Your task to perform on an android device: find photos in the google photos app Image 0: 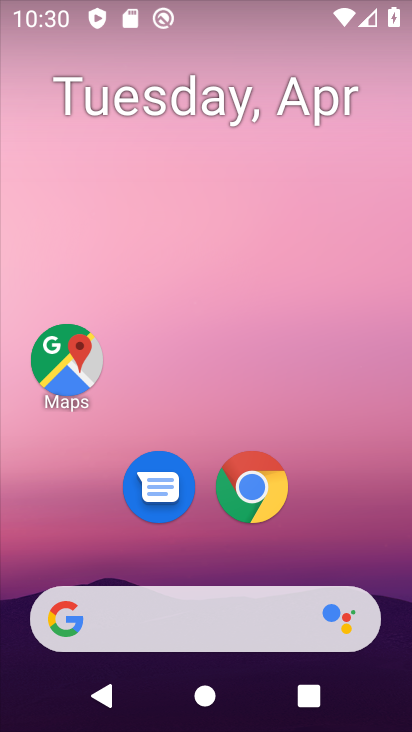
Step 0: drag from (151, 611) to (161, 204)
Your task to perform on an android device: find photos in the google photos app Image 1: 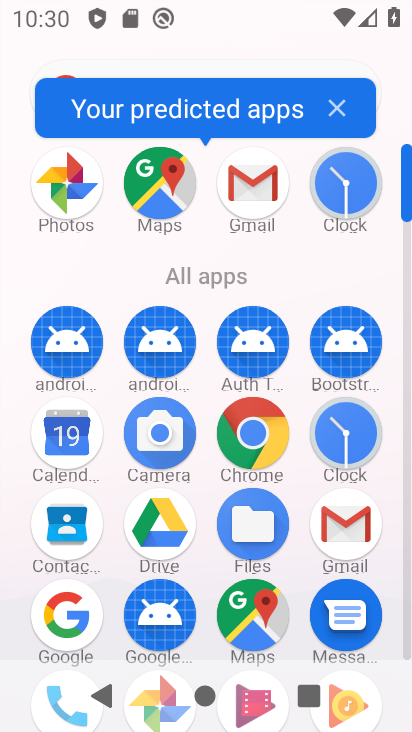
Step 1: drag from (122, 636) to (90, 315)
Your task to perform on an android device: find photos in the google photos app Image 2: 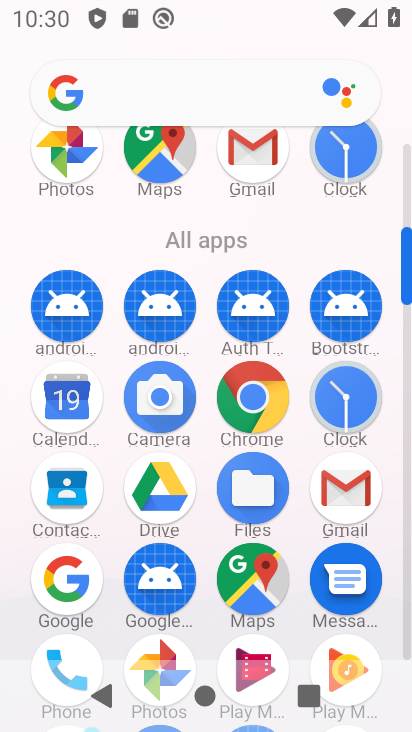
Step 2: click (158, 641)
Your task to perform on an android device: find photos in the google photos app Image 3: 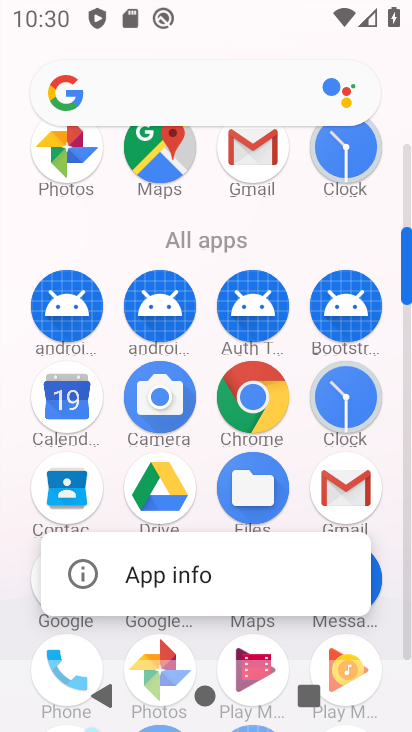
Step 3: click (167, 652)
Your task to perform on an android device: find photos in the google photos app Image 4: 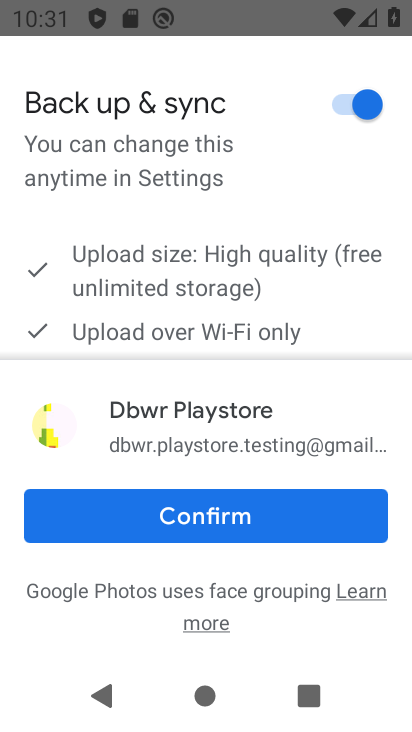
Step 4: click (242, 524)
Your task to perform on an android device: find photos in the google photos app Image 5: 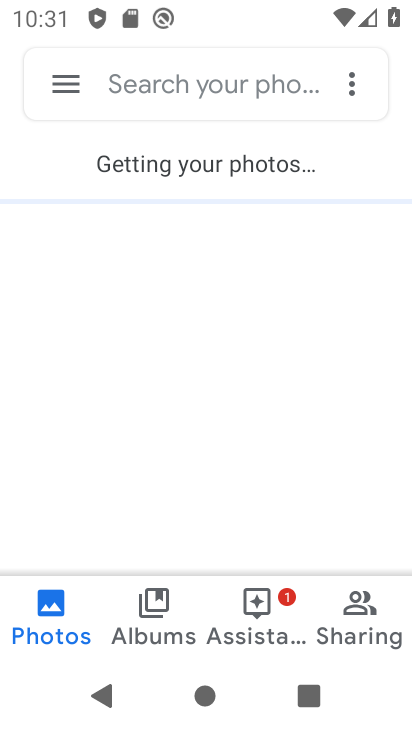
Step 5: task complete